Your task to perform on an android device: star an email in the gmail app Image 0: 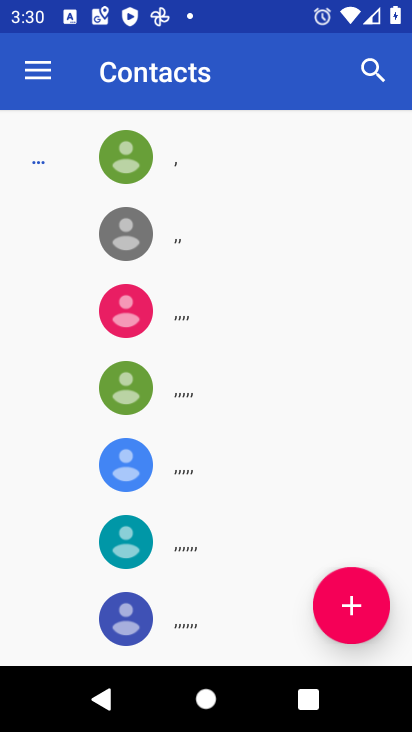
Step 0: press home button
Your task to perform on an android device: star an email in the gmail app Image 1: 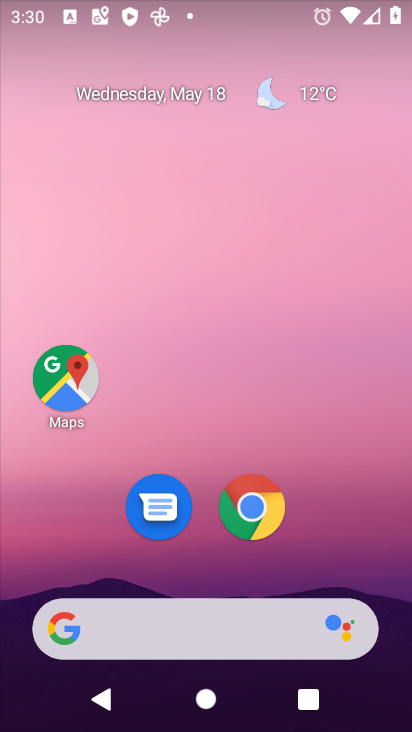
Step 1: drag from (401, 619) to (307, 157)
Your task to perform on an android device: star an email in the gmail app Image 2: 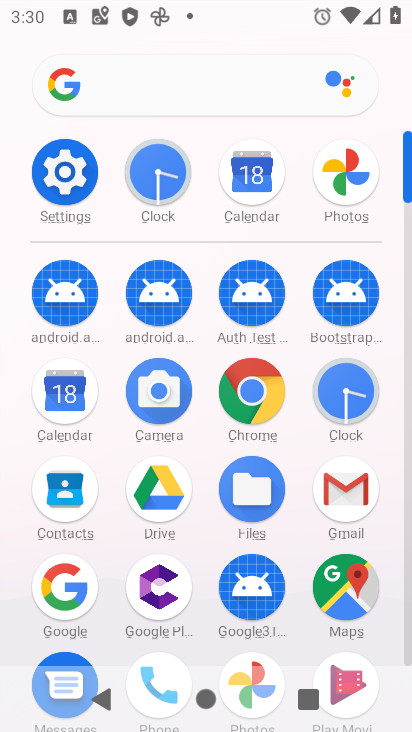
Step 2: click (408, 649)
Your task to perform on an android device: star an email in the gmail app Image 3: 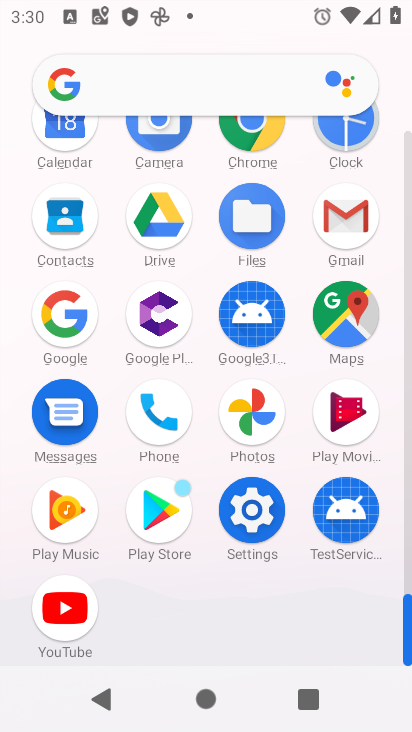
Step 3: click (344, 211)
Your task to perform on an android device: star an email in the gmail app Image 4: 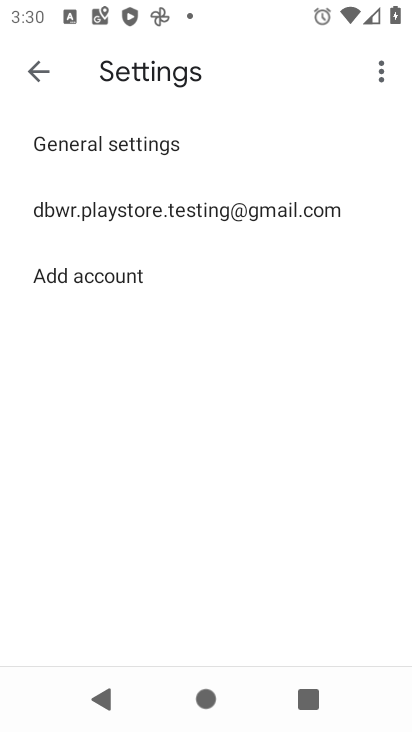
Step 4: press back button
Your task to perform on an android device: star an email in the gmail app Image 5: 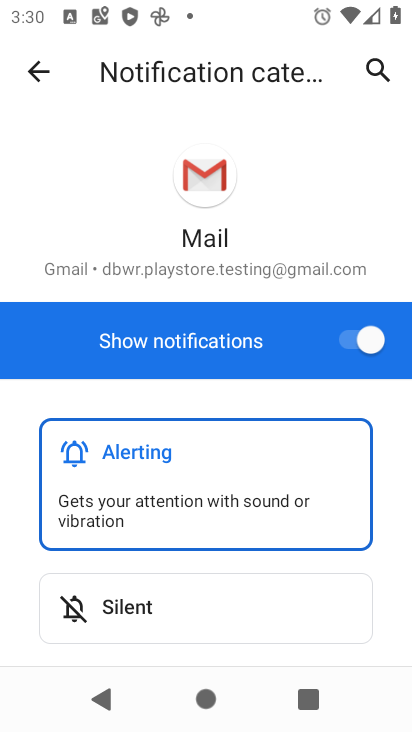
Step 5: press back button
Your task to perform on an android device: star an email in the gmail app Image 6: 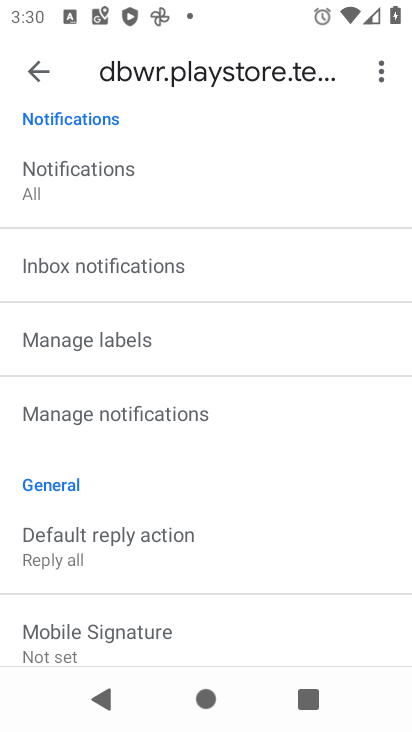
Step 6: press back button
Your task to perform on an android device: star an email in the gmail app Image 7: 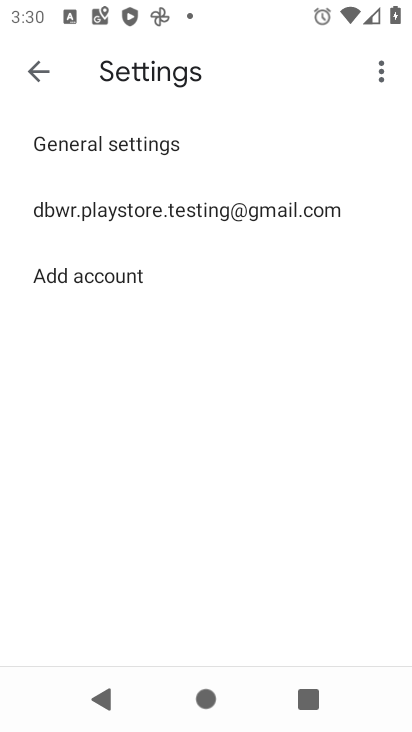
Step 7: press back button
Your task to perform on an android device: star an email in the gmail app Image 8: 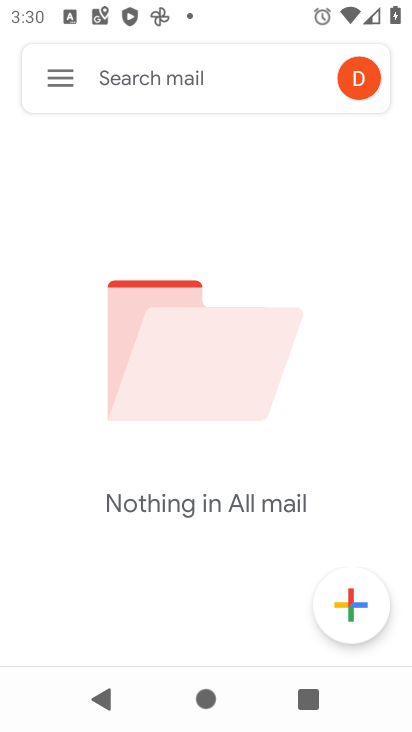
Step 8: click (60, 71)
Your task to perform on an android device: star an email in the gmail app Image 9: 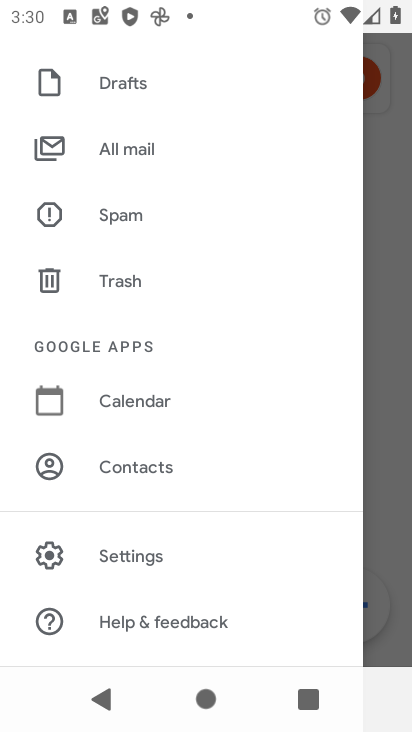
Step 9: click (117, 156)
Your task to perform on an android device: star an email in the gmail app Image 10: 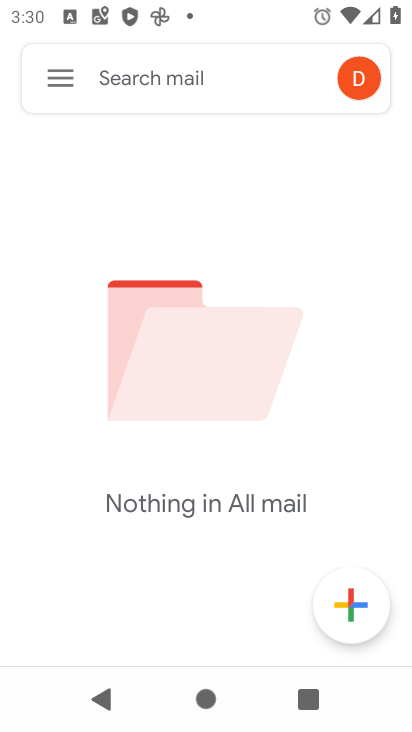
Step 10: task complete